Your task to perform on an android device: Go to display settings Image 0: 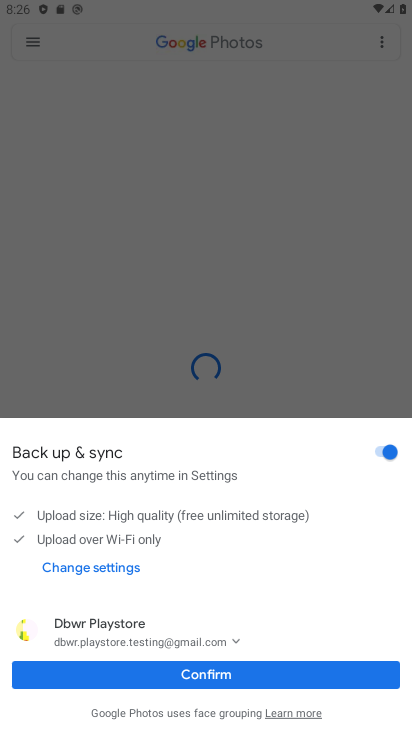
Step 0: press home button
Your task to perform on an android device: Go to display settings Image 1: 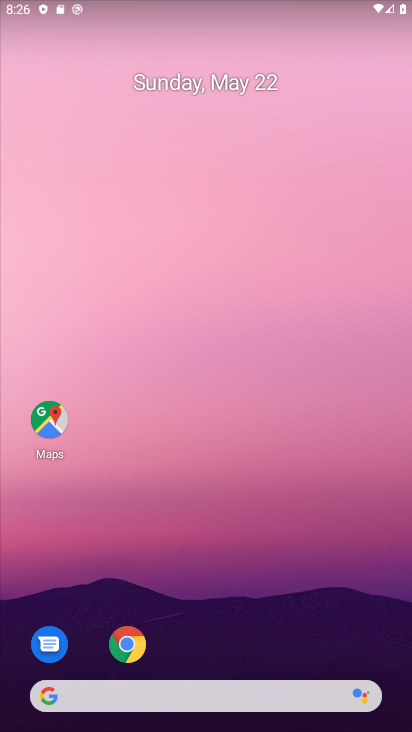
Step 1: drag from (241, 689) to (119, 12)
Your task to perform on an android device: Go to display settings Image 2: 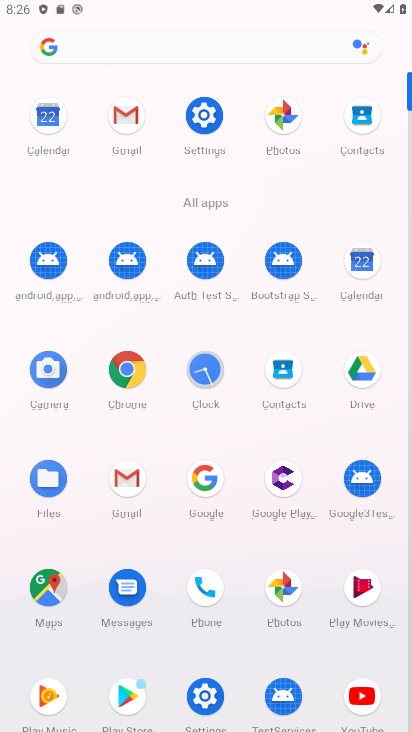
Step 2: click (184, 132)
Your task to perform on an android device: Go to display settings Image 3: 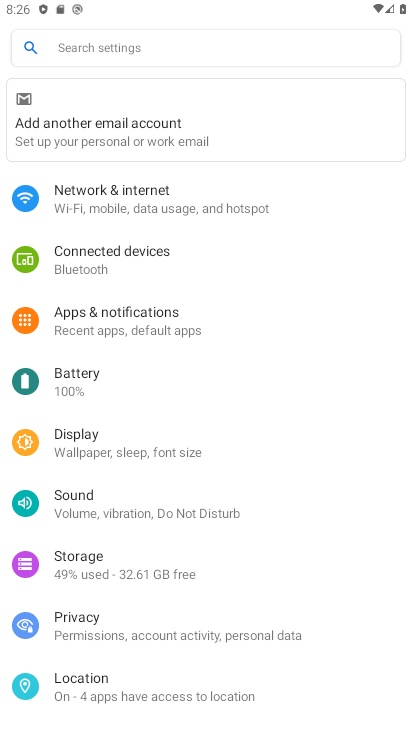
Step 3: click (129, 453)
Your task to perform on an android device: Go to display settings Image 4: 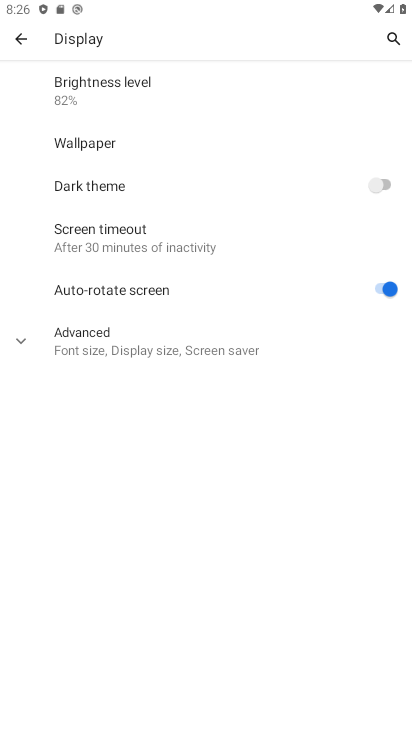
Step 4: task complete